Your task to perform on an android device: turn on improve location accuracy Image 0: 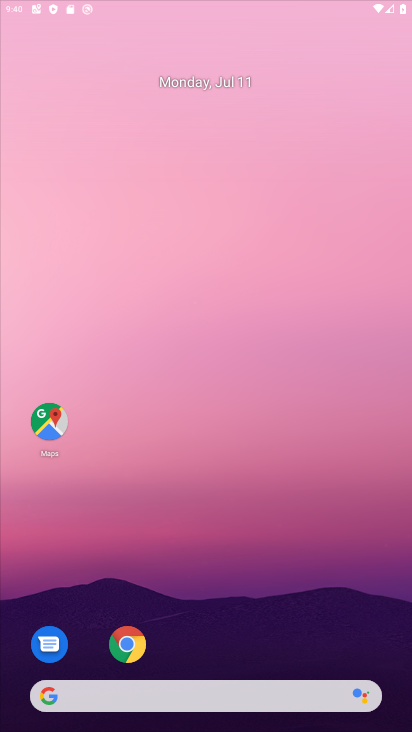
Step 0: drag from (187, 642) to (368, 117)
Your task to perform on an android device: turn on improve location accuracy Image 1: 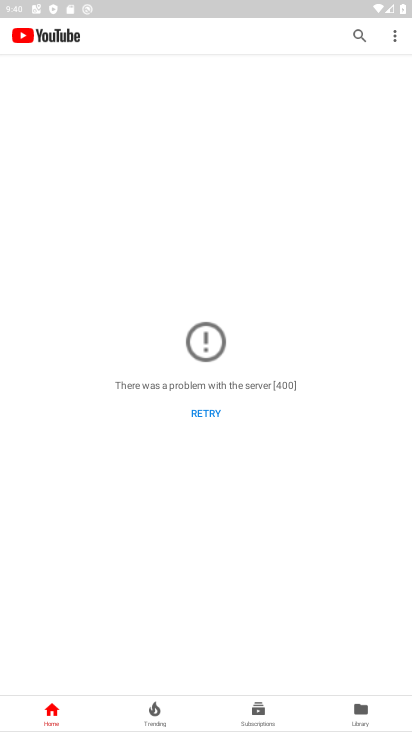
Step 1: press home button
Your task to perform on an android device: turn on improve location accuracy Image 2: 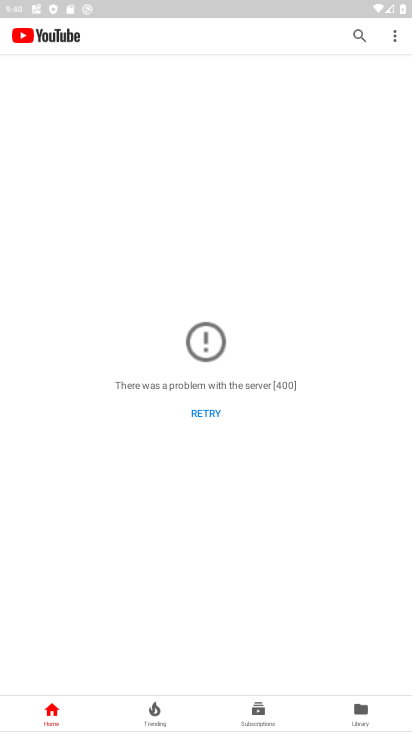
Step 2: drag from (368, 117) to (393, 367)
Your task to perform on an android device: turn on improve location accuracy Image 3: 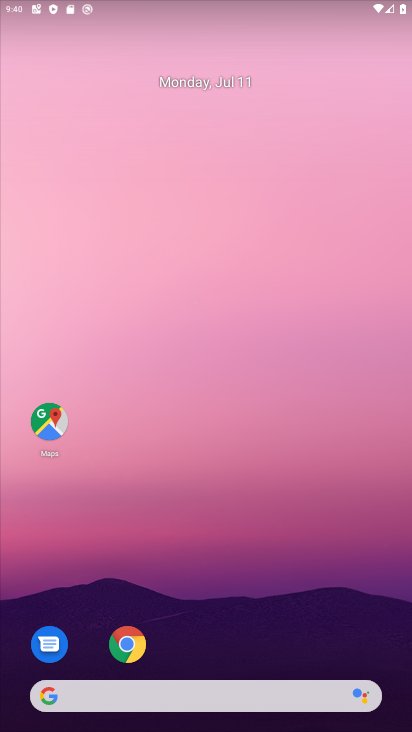
Step 3: drag from (200, 611) to (245, 119)
Your task to perform on an android device: turn on improve location accuracy Image 4: 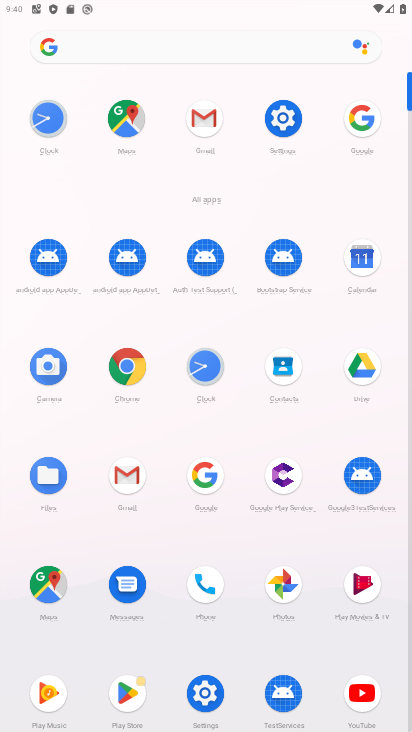
Step 4: click (285, 118)
Your task to perform on an android device: turn on improve location accuracy Image 5: 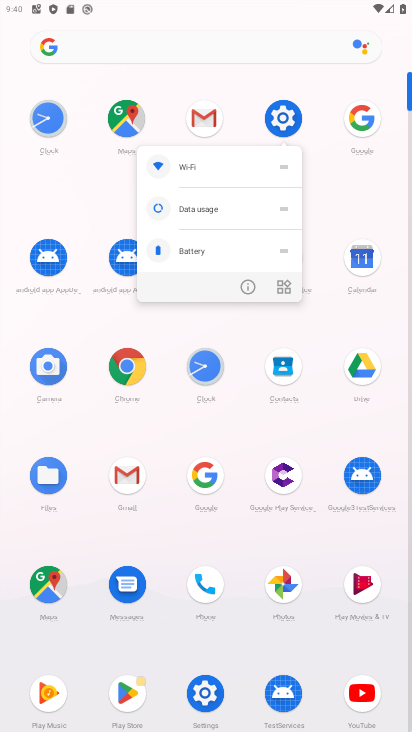
Step 5: click (276, 118)
Your task to perform on an android device: turn on improve location accuracy Image 6: 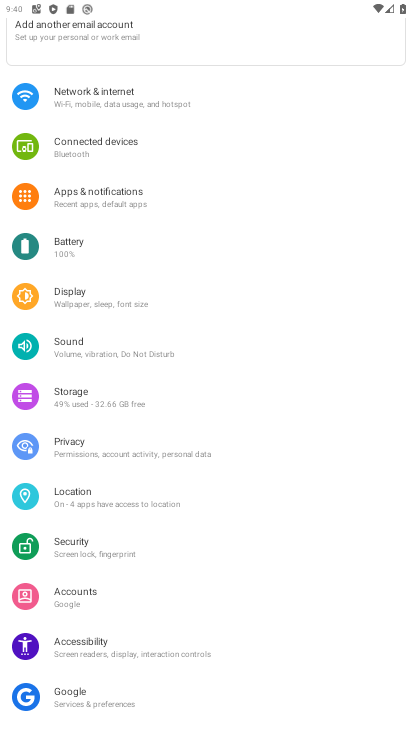
Step 6: click (87, 497)
Your task to perform on an android device: turn on improve location accuracy Image 7: 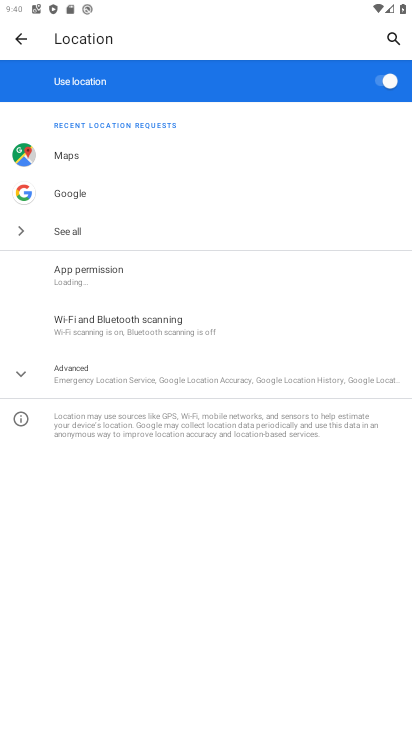
Step 7: click (95, 378)
Your task to perform on an android device: turn on improve location accuracy Image 8: 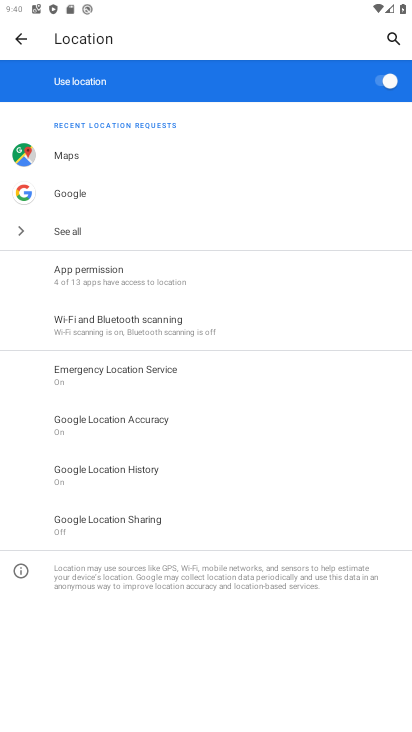
Step 8: click (148, 421)
Your task to perform on an android device: turn on improve location accuracy Image 9: 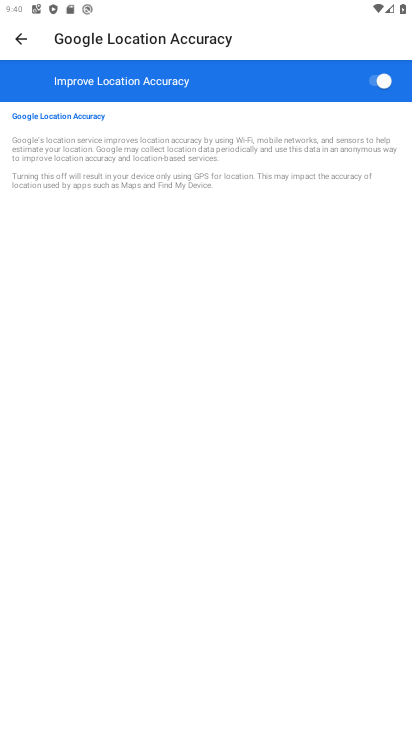
Step 9: task complete